Your task to perform on an android device: Clear the shopping cart on ebay.com. Add asus rog to the cart on ebay.com, then select checkout. Image 0: 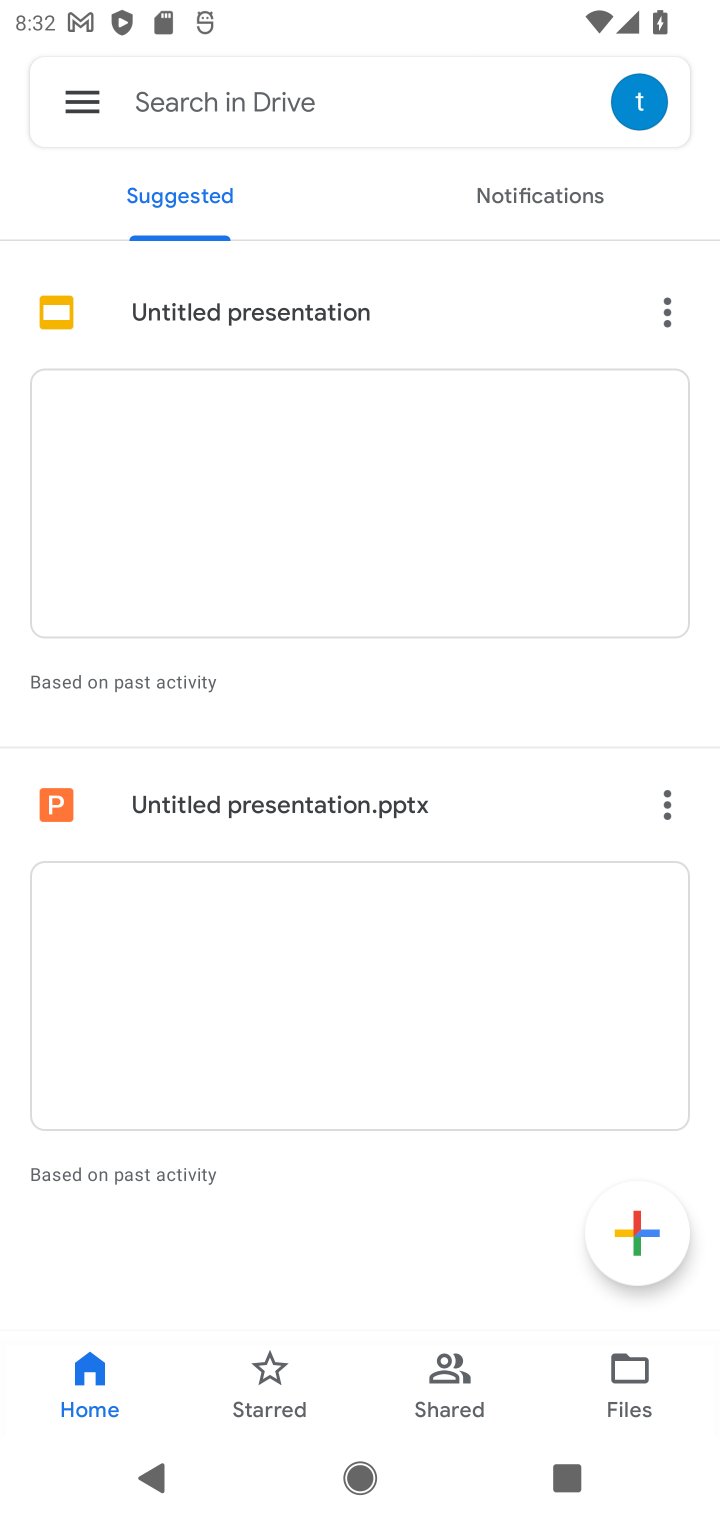
Step 0: press home button
Your task to perform on an android device: Clear the shopping cart on ebay.com. Add asus rog to the cart on ebay.com, then select checkout. Image 1: 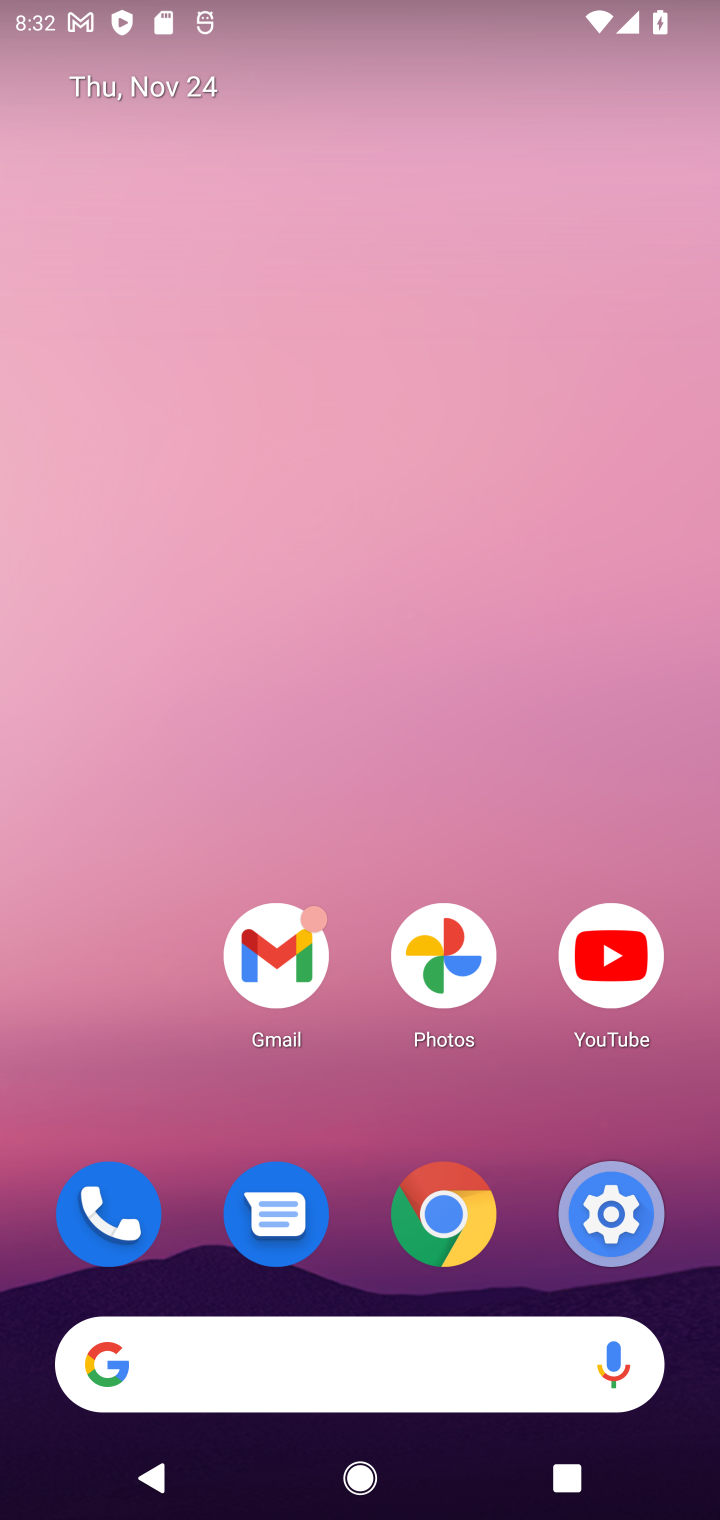
Step 1: click (440, 1358)
Your task to perform on an android device: Clear the shopping cart on ebay.com. Add asus rog to the cart on ebay.com, then select checkout. Image 2: 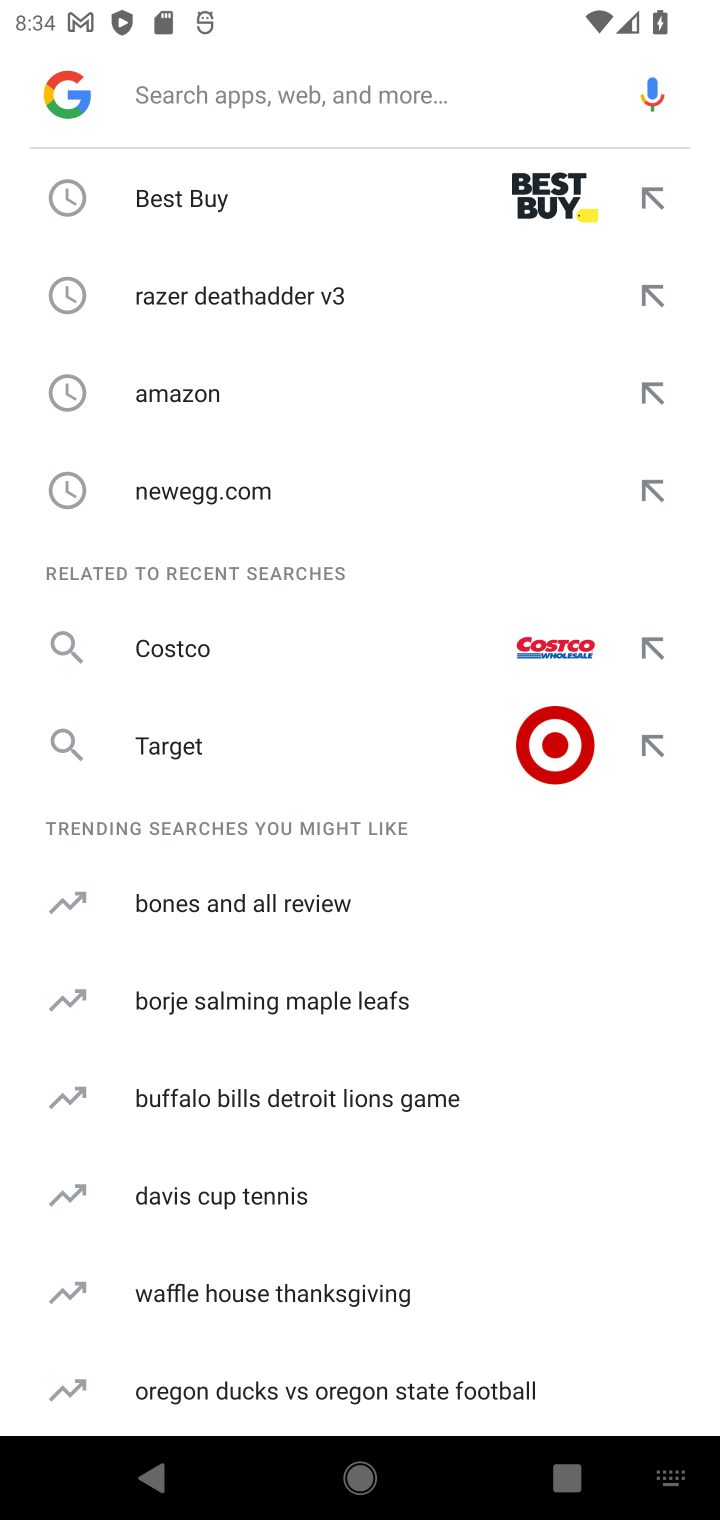
Step 2: type "ebay.com"
Your task to perform on an android device: Clear the shopping cart on ebay.com. Add asus rog to the cart on ebay.com, then select checkout. Image 3: 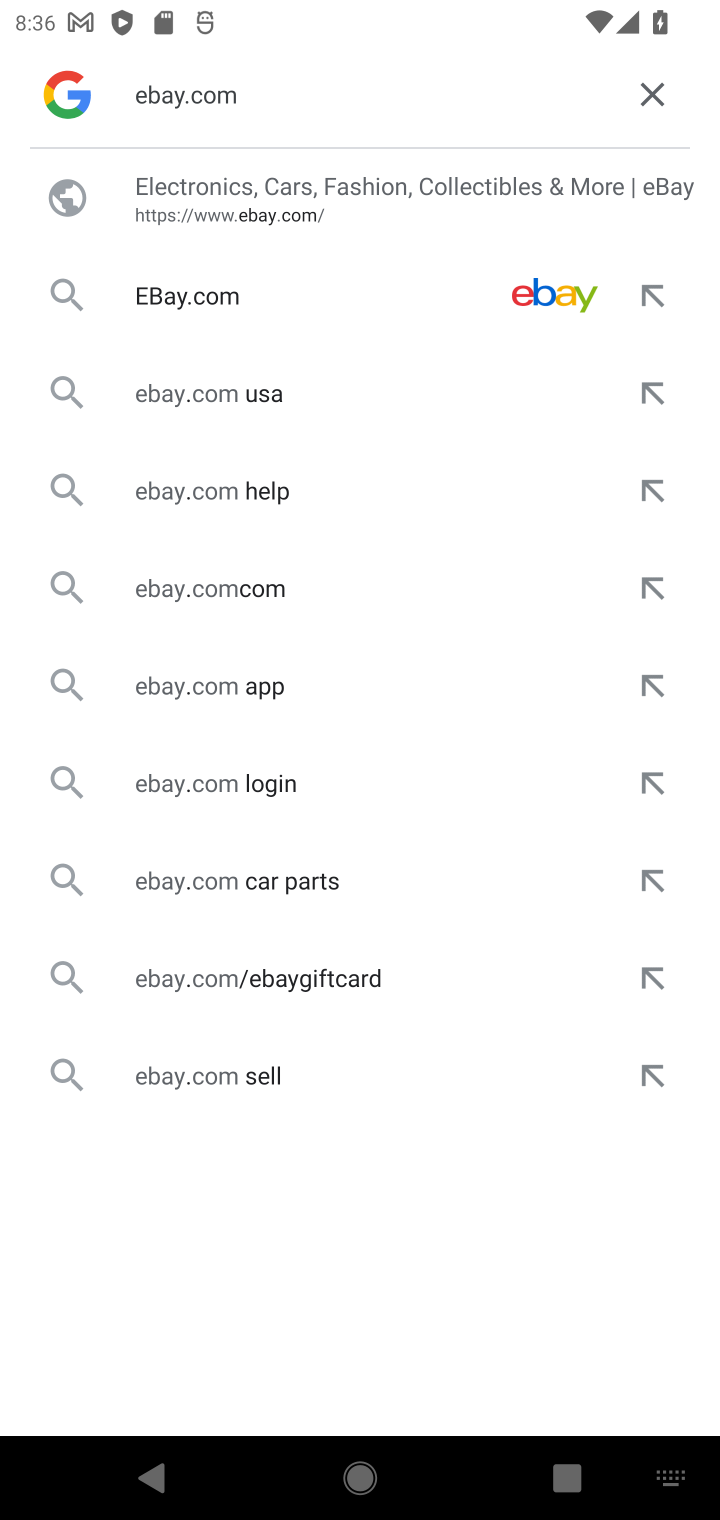
Step 3: click (238, 277)
Your task to perform on an android device: Clear the shopping cart on ebay.com. Add asus rog to the cart on ebay.com, then select checkout. Image 4: 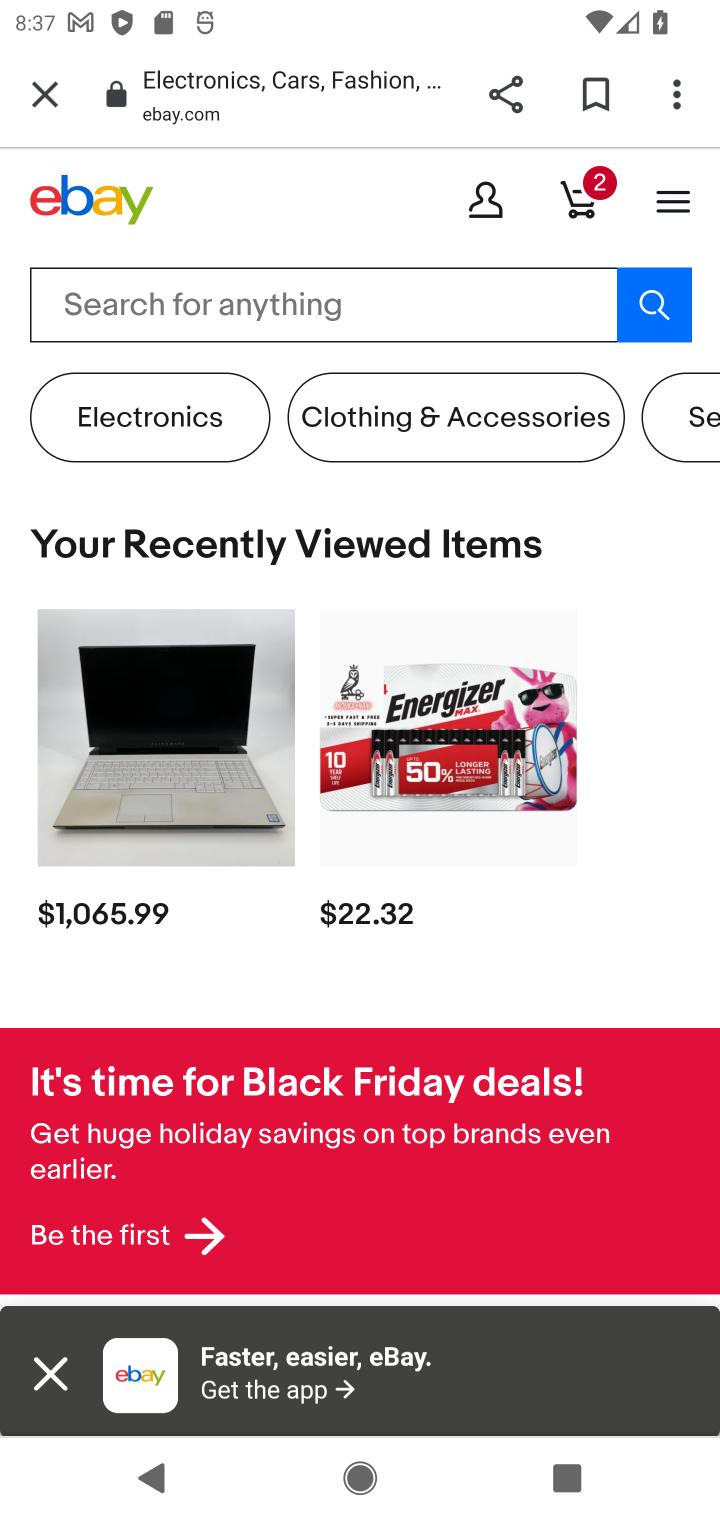
Step 4: click (133, 318)
Your task to perform on an android device: Clear the shopping cart on ebay.com. Add asus rog to the cart on ebay.com, then select checkout. Image 5: 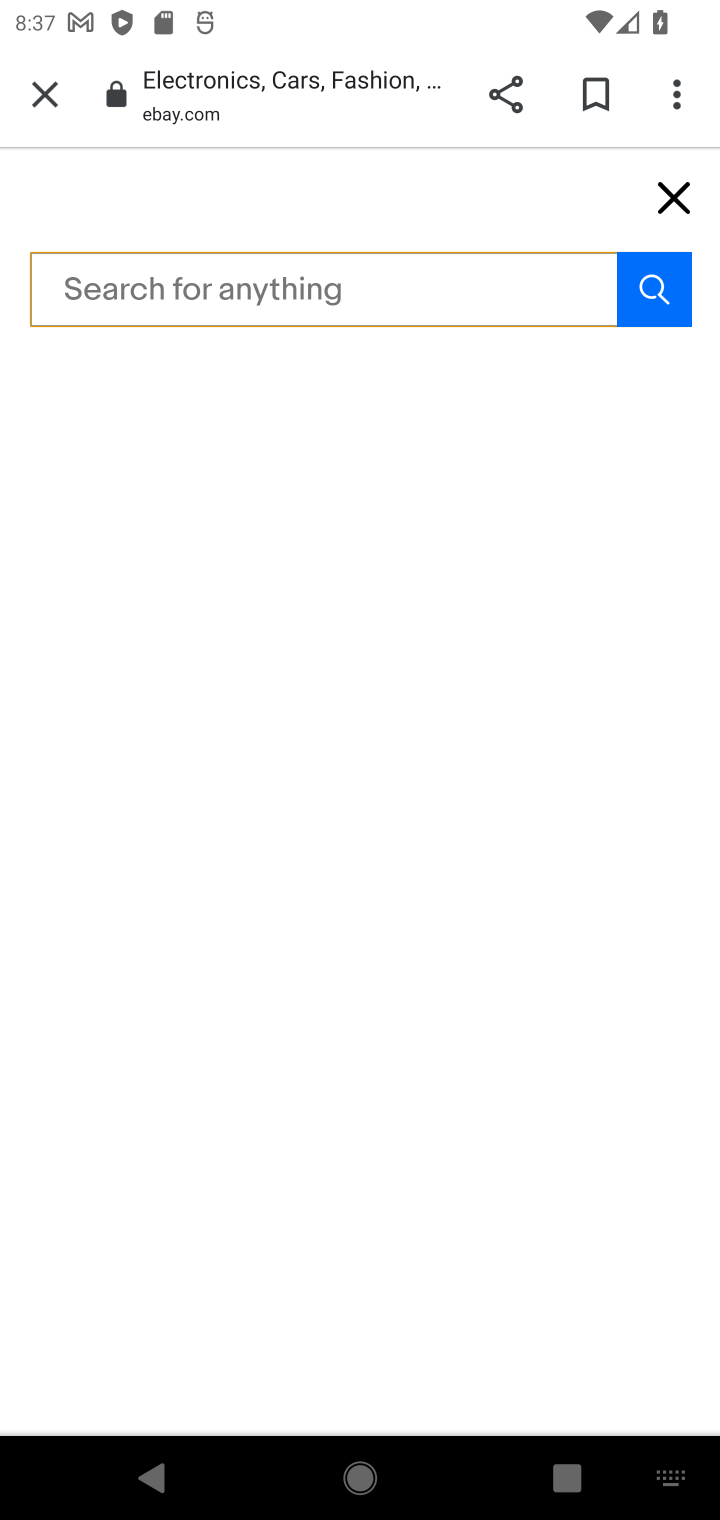
Step 5: type "asus rog"
Your task to perform on an android device: Clear the shopping cart on ebay.com. Add asus rog to the cart on ebay.com, then select checkout. Image 6: 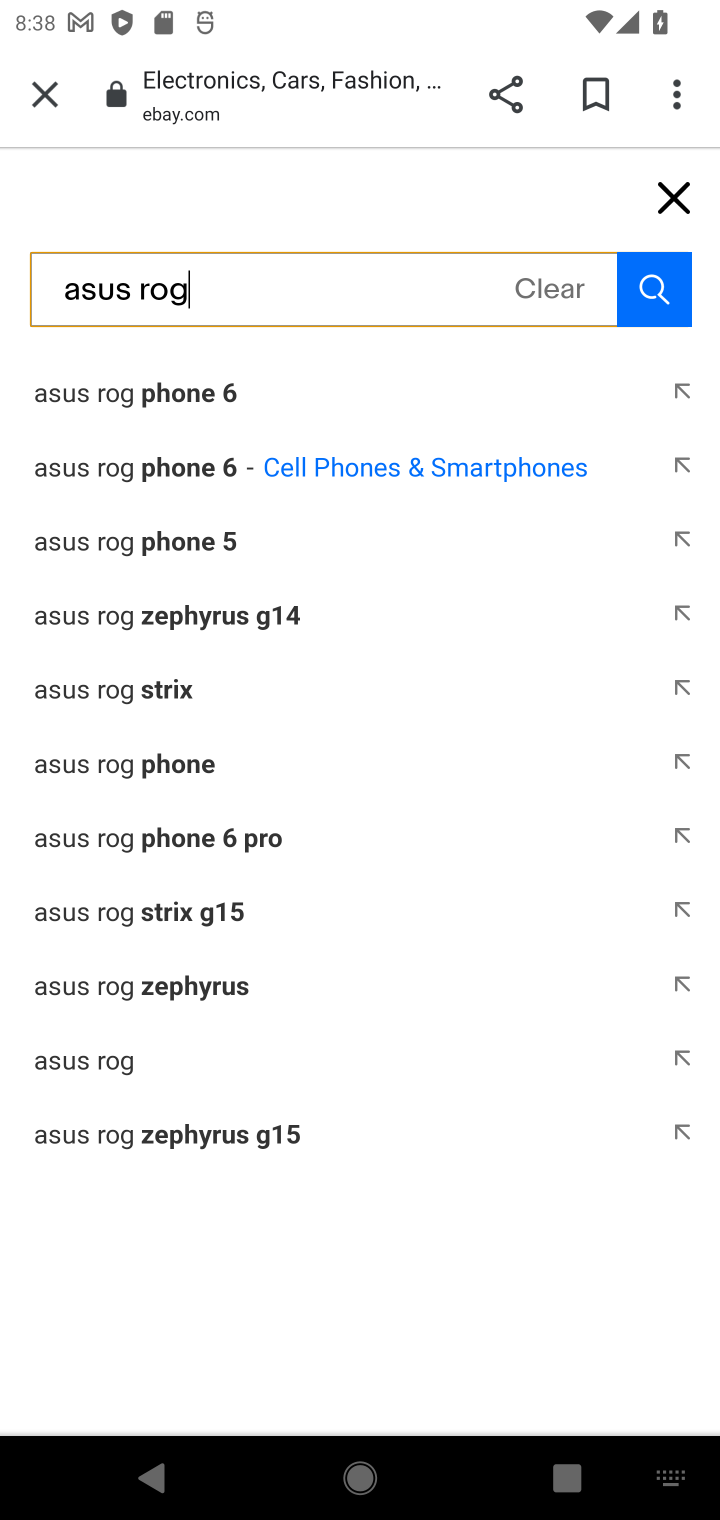
Step 6: click (122, 368)
Your task to perform on an android device: Clear the shopping cart on ebay.com. Add asus rog to the cart on ebay.com, then select checkout. Image 7: 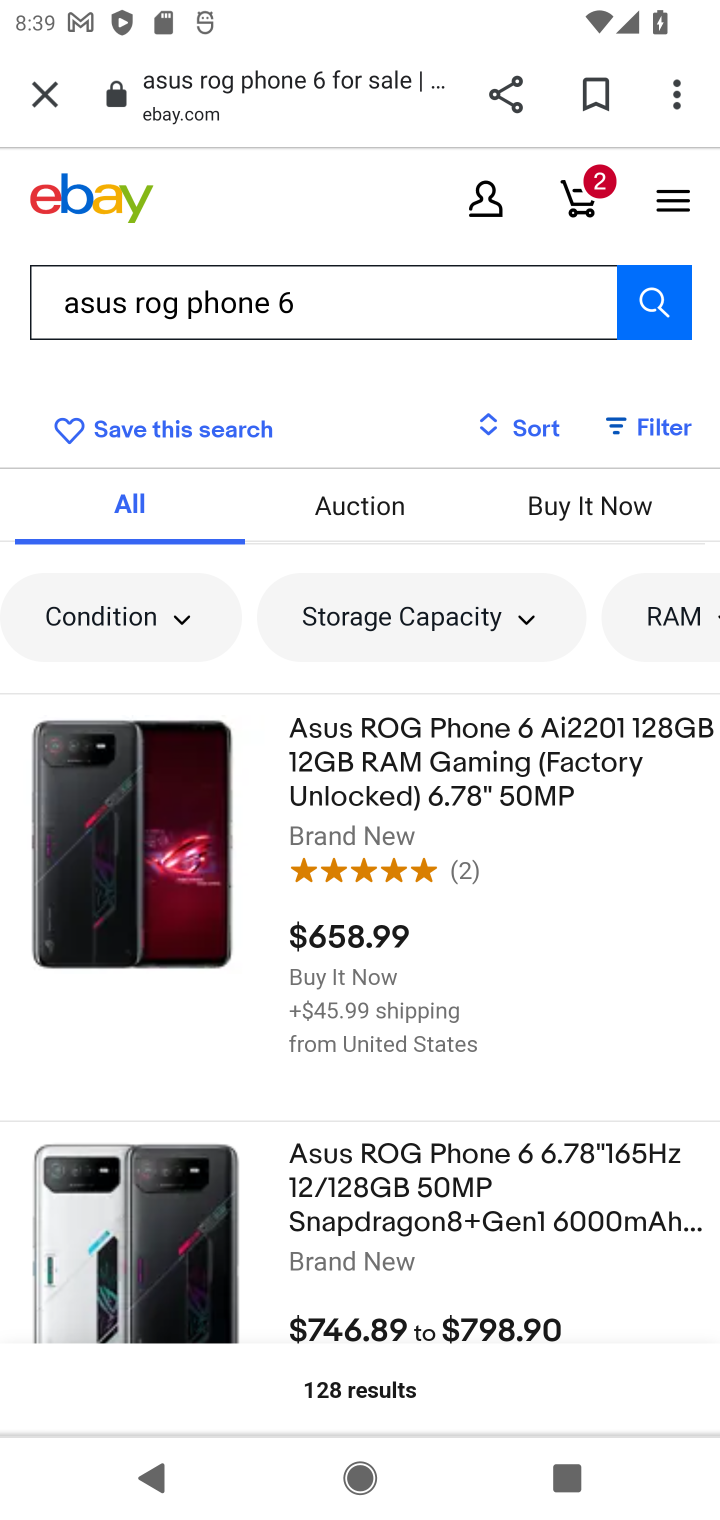
Step 7: click (358, 824)
Your task to perform on an android device: Clear the shopping cart on ebay.com. Add asus rog to the cart on ebay.com, then select checkout. Image 8: 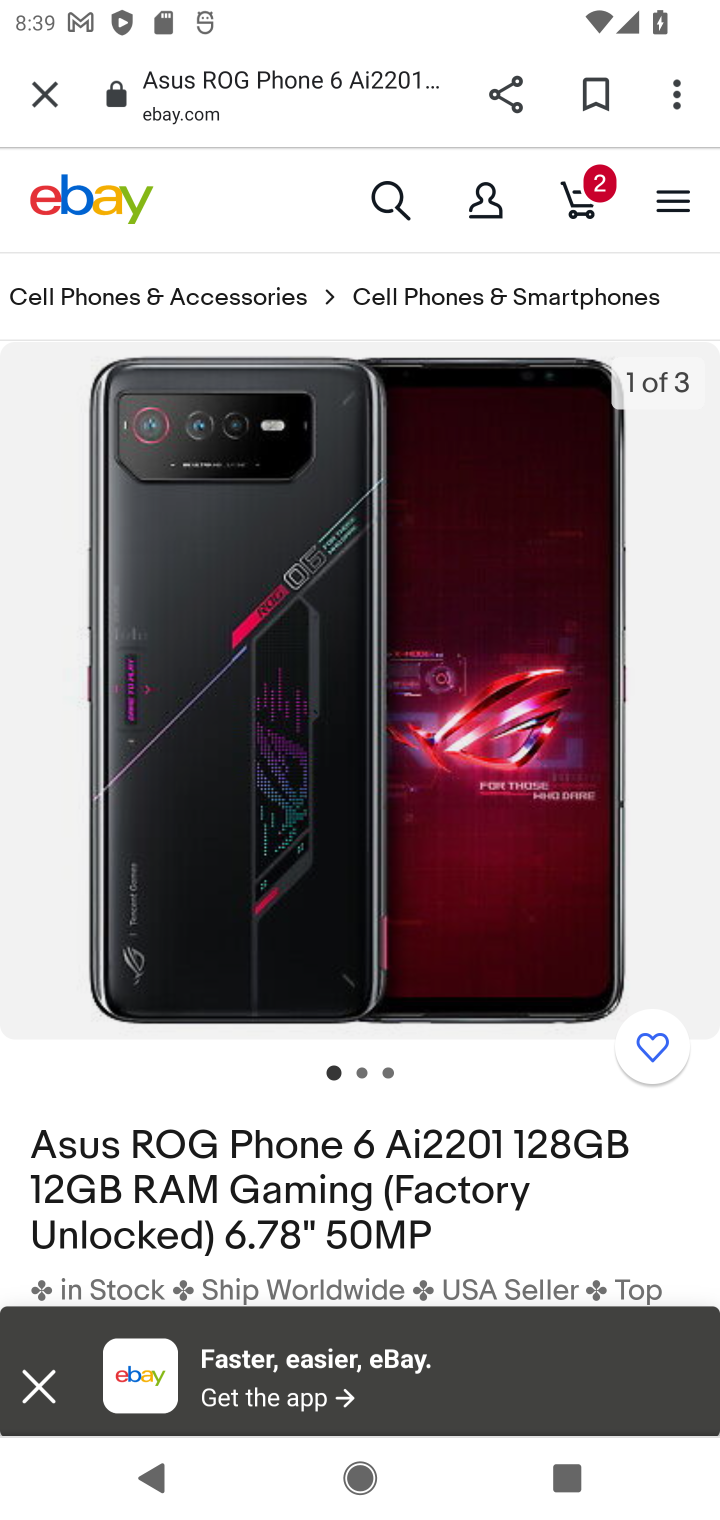
Step 8: drag from (306, 1198) to (451, 436)
Your task to perform on an android device: Clear the shopping cart on ebay.com. Add asus rog to the cart on ebay.com, then select checkout. Image 9: 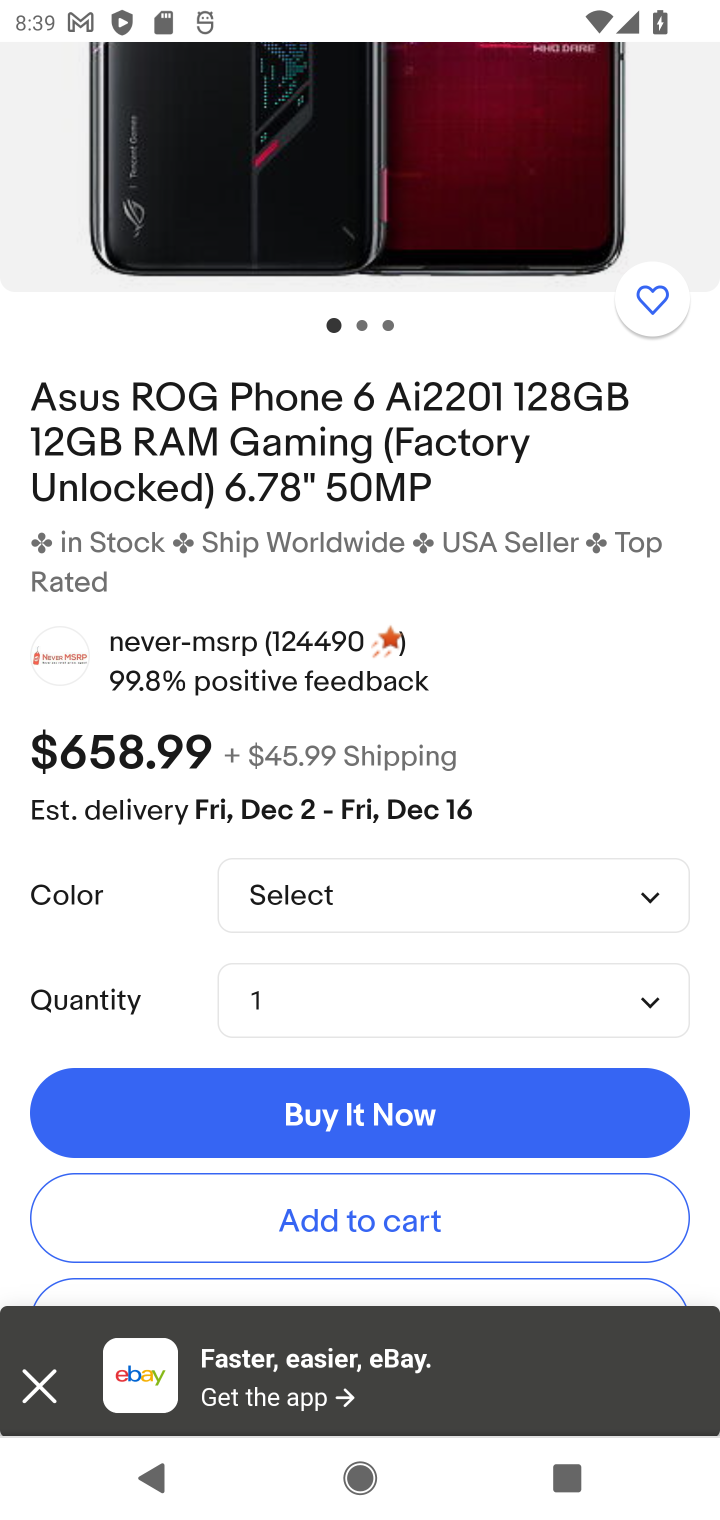
Step 9: click (311, 1198)
Your task to perform on an android device: Clear the shopping cart on ebay.com. Add asus rog to the cart on ebay.com, then select checkout. Image 10: 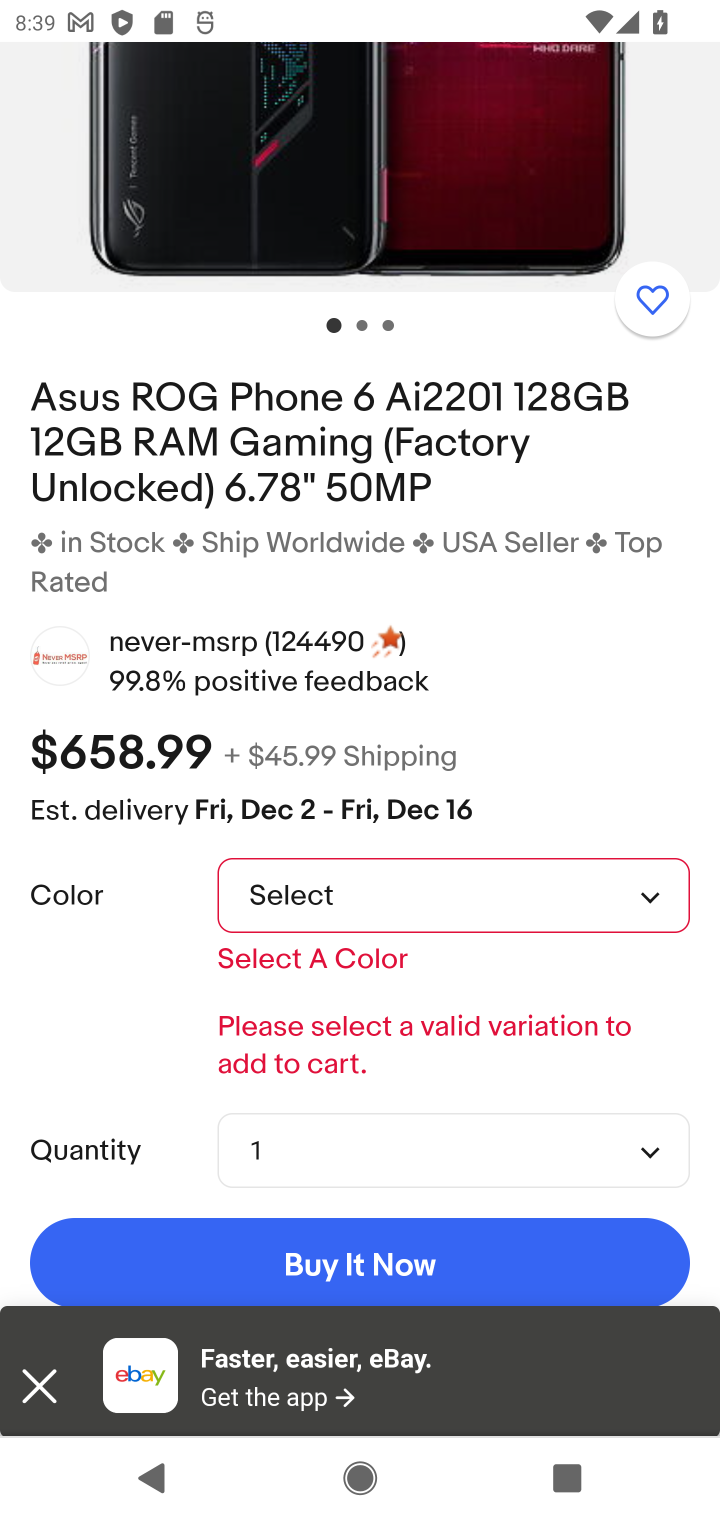
Step 10: task complete